Your task to perform on an android device: See recent photos Image 0: 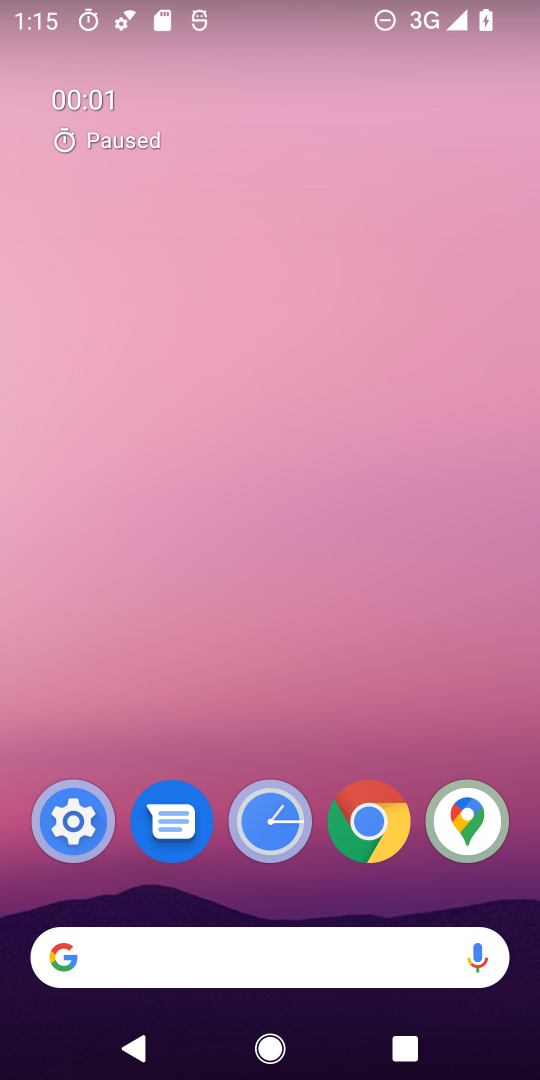
Step 0: drag from (493, 888) to (206, 58)
Your task to perform on an android device: See recent photos Image 1: 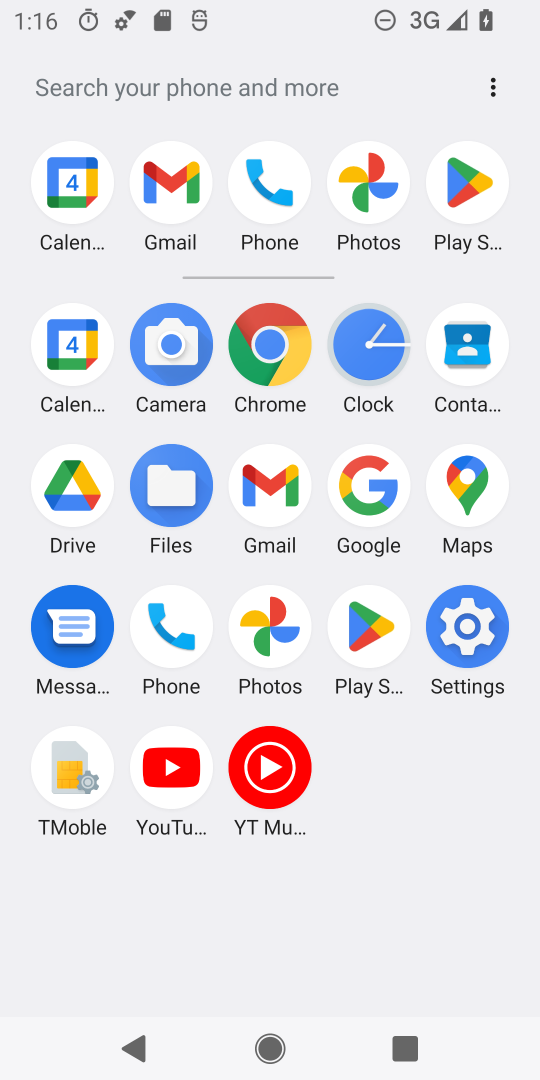
Step 1: click (275, 615)
Your task to perform on an android device: See recent photos Image 2: 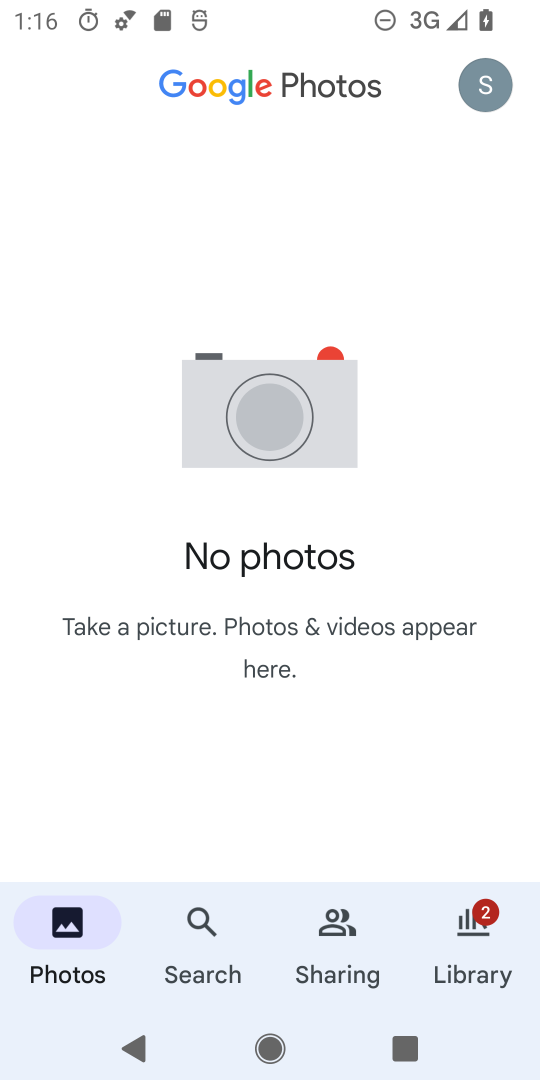
Step 2: task complete